Your task to perform on an android device: open app "Chime – Mobile Banking" (install if not already installed) Image 0: 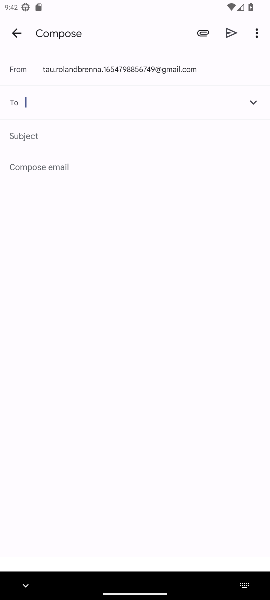
Step 0: press home button
Your task to perform on an android device: open app "Chime – Mobile Banking" (install if not already installed) Image 1: 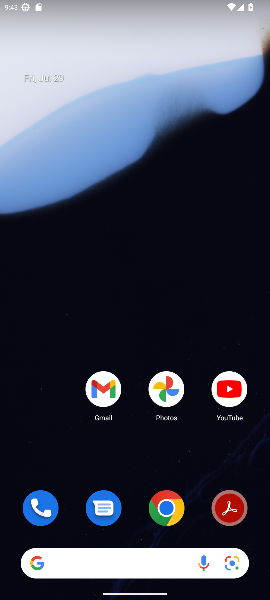
Step 1: drag from (173, 555) to (233, 0)
Your task to perform on an android device: open app "Chime – Mobile Banking" (install if not already installed) Image 2: 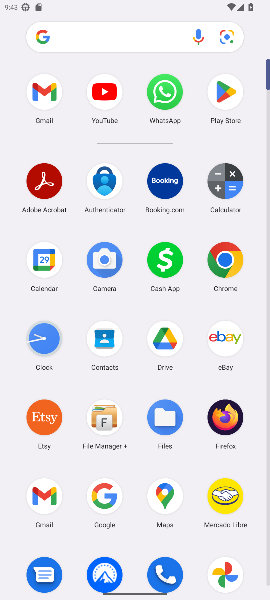
Step 2: click (221, 79)
Your task to perform on an android device: open app "Chime – Mobile Banking" (install if not already installed) Image 3: 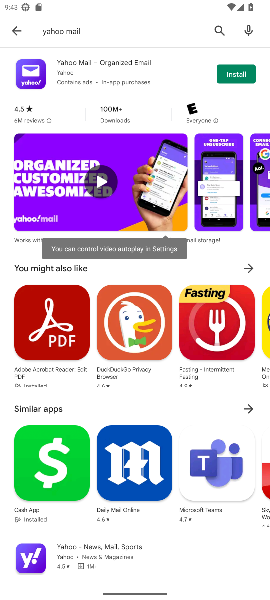
Step 3: click (221, 32)
Your task to perform on an android device: open app "Chime – Mobile Banking" (install if not already installed) Image 4: 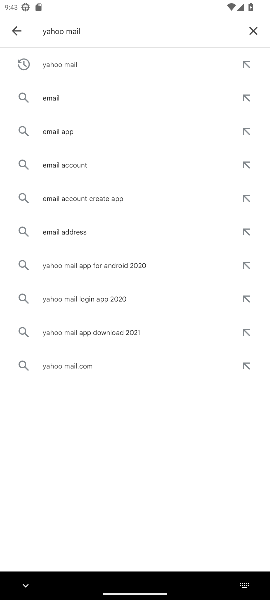
Step 4: click (254, 33)
Your task to perform on an android device: open app "Chime – Mobile Banking" (install if not already installed) Image 5: 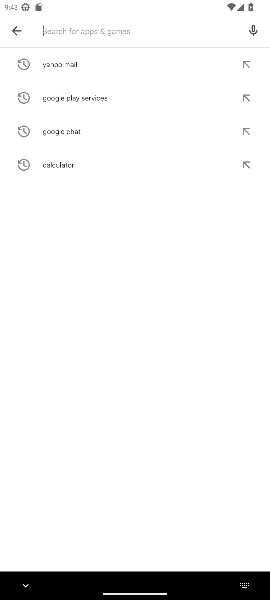
Step 5: type "chime - mobile banking"
Your task to perform on an android device: open app "Chime – Mobile Banking" (install if not already installed) Image 6: 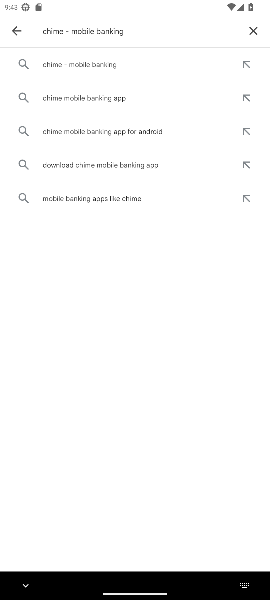
Step 6: click (125, 71)
Your task to perform on an android device: open app "Chime – Mobile Banking" (install if not already installed) Image 7: 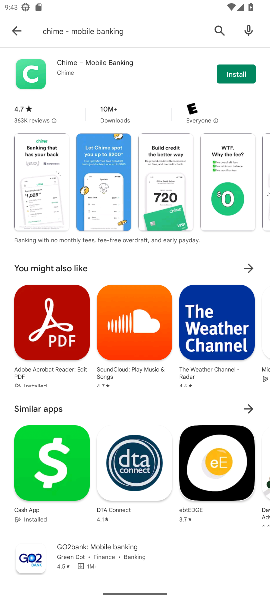
Step 7: click (237, 69)
Your task to perform on an android device: open app "Chime – Mobile Banking" (install if not already installed) Image 8: 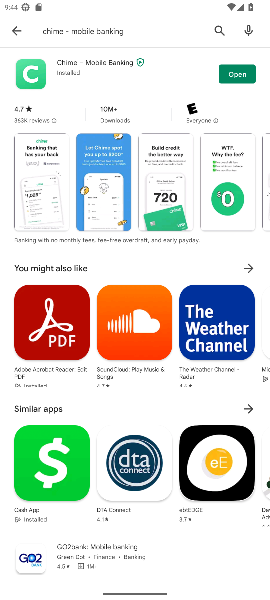
Step 8: click (238, 71)
Your task to perform on an android device: open app "Chime – Mobile Banking" (install if not already installed) Image 9: 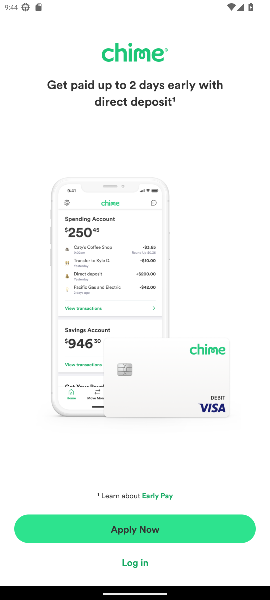
Step 9: task complete